Your task to perform on an android device: turn vacation reply on in the gmail app Image 0: 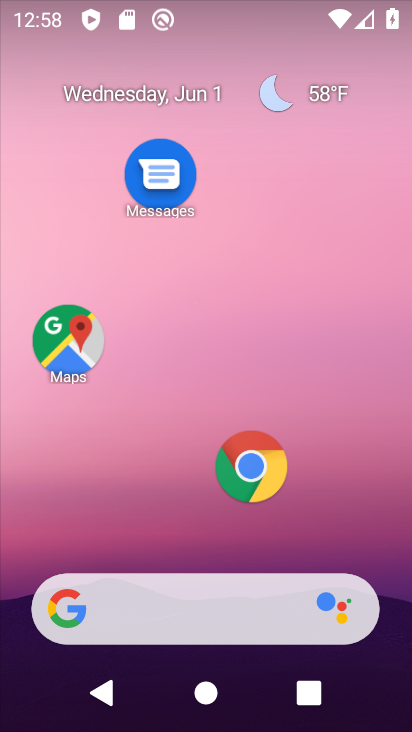
Step 0: drag from (154, 720) to (108, 106)
Your task to perform on an android device: turn vacation reply on in the gmail app Image 1: 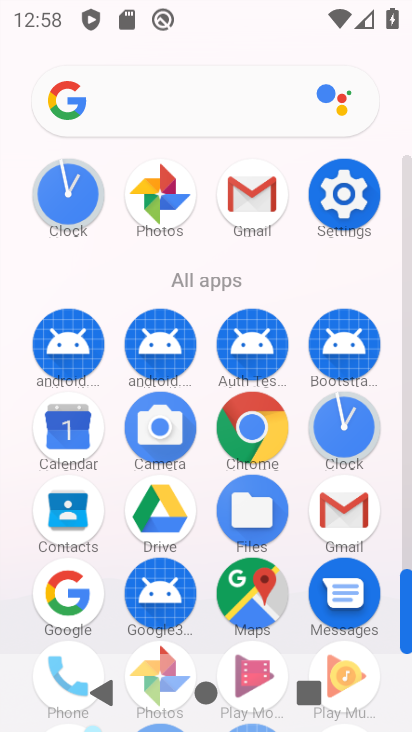
Step 1: drag from (298, 617) to (259, 121)
Your task to perform on an android device: turn vacation reply on in the gmail app Image 2: 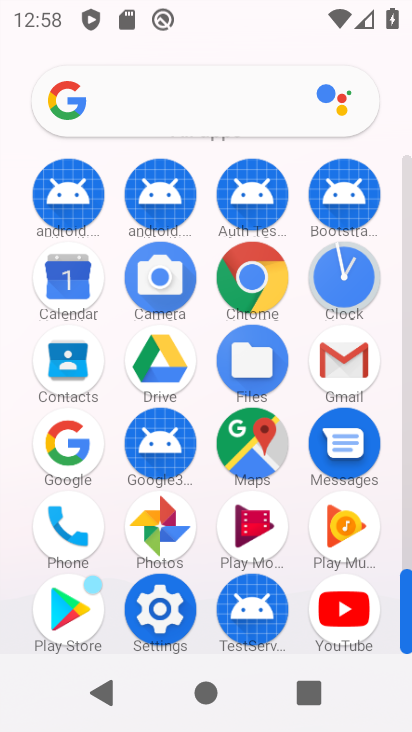
Step 2: click (340, 351)
Your task to perform on an android device: turn vacation reply on in the gmail app Image 3: 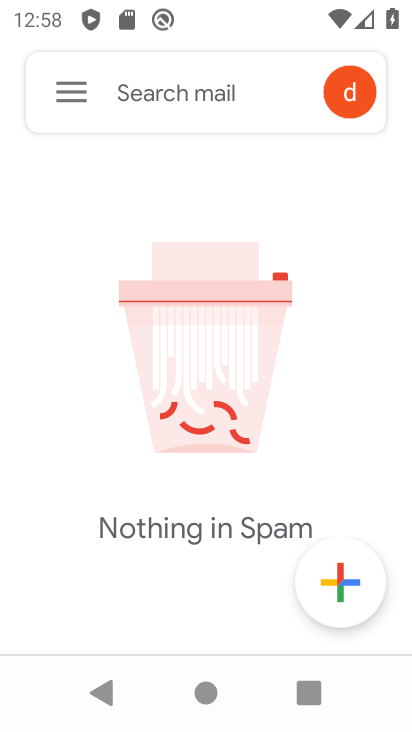
Step 3: click (69, 99)
Your task to perform on an android device: turn vacation reply on in the gmail app Image 4: 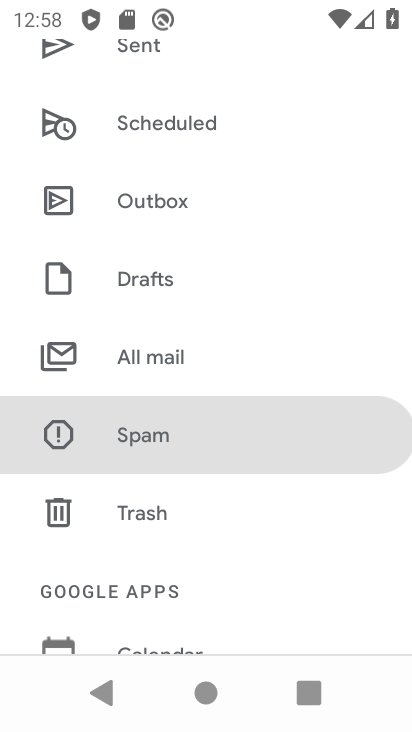
Step 4: drag from (184, 556) to (106, 146)
Your task to perform on an android device: turn vacation reply on in the gmail app Image 5: 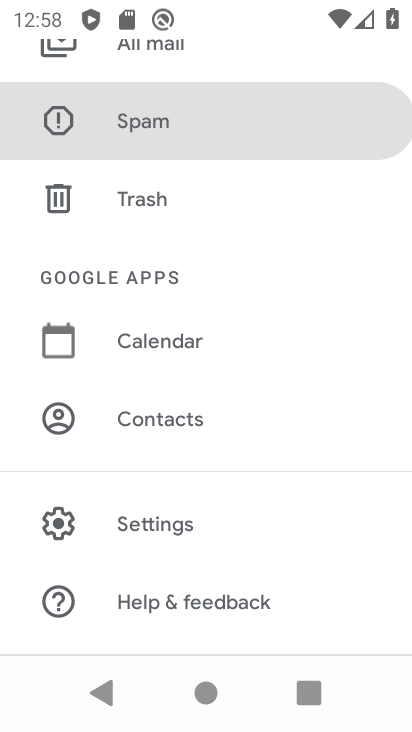
Step 5: click (206, 527)
Your task to perform on an android device: turn vacation reply on in the gmail app Image 6: 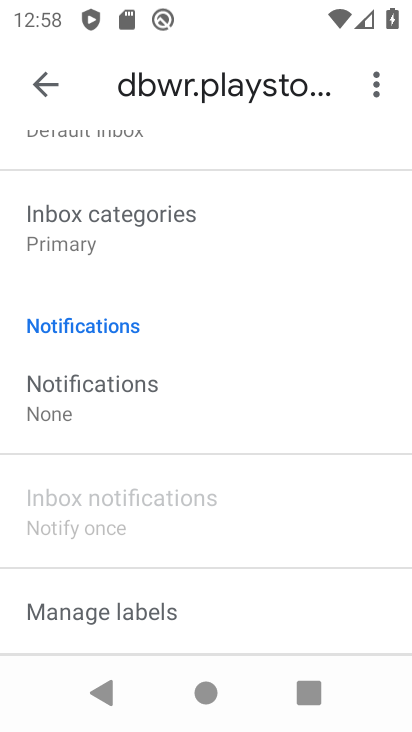
Step 6: drag from (156, 519) to (136, 202)
Your task to perform on an android device: turn vacation reply on in the gmail app Image 7: 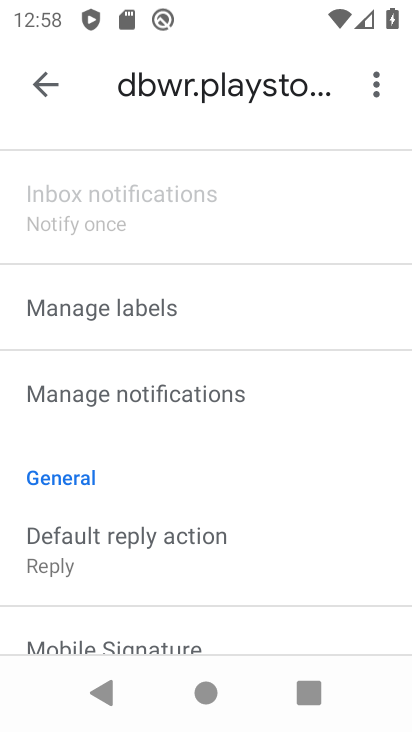
Step 7: drag from (166, 581) to (116, 213)
Your task to perform on an android device: turn vacation reply on in the gmail app Image 8: 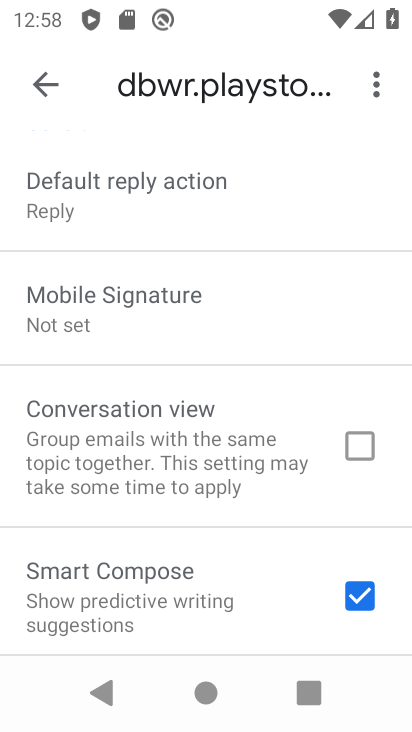
Step 8: drag from (111, 600) to (72, 214)
Your task to perform on an android device: turn vacation reply on in the gmail app Image 9: 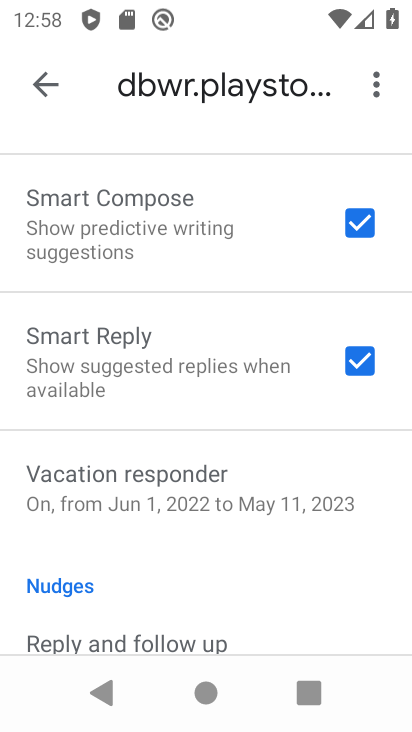
Step 9: click (107, 503)
Your task to perform on an android device: turn vacation reply on in the gmail app Image 10: 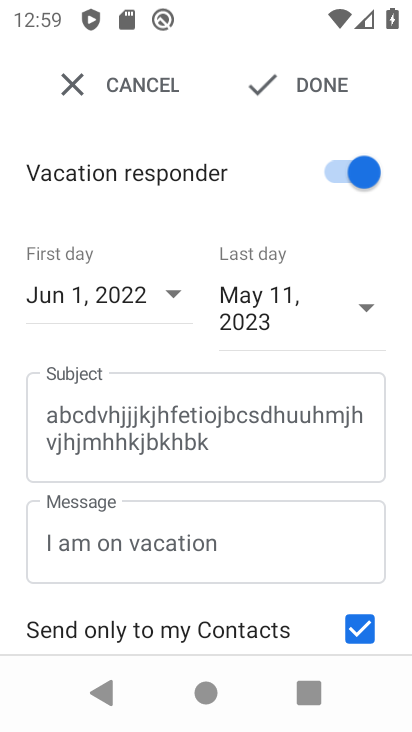
Step 10: task complete